Your task to perform on an android device: turn off javascript in the chrome app Image 0: 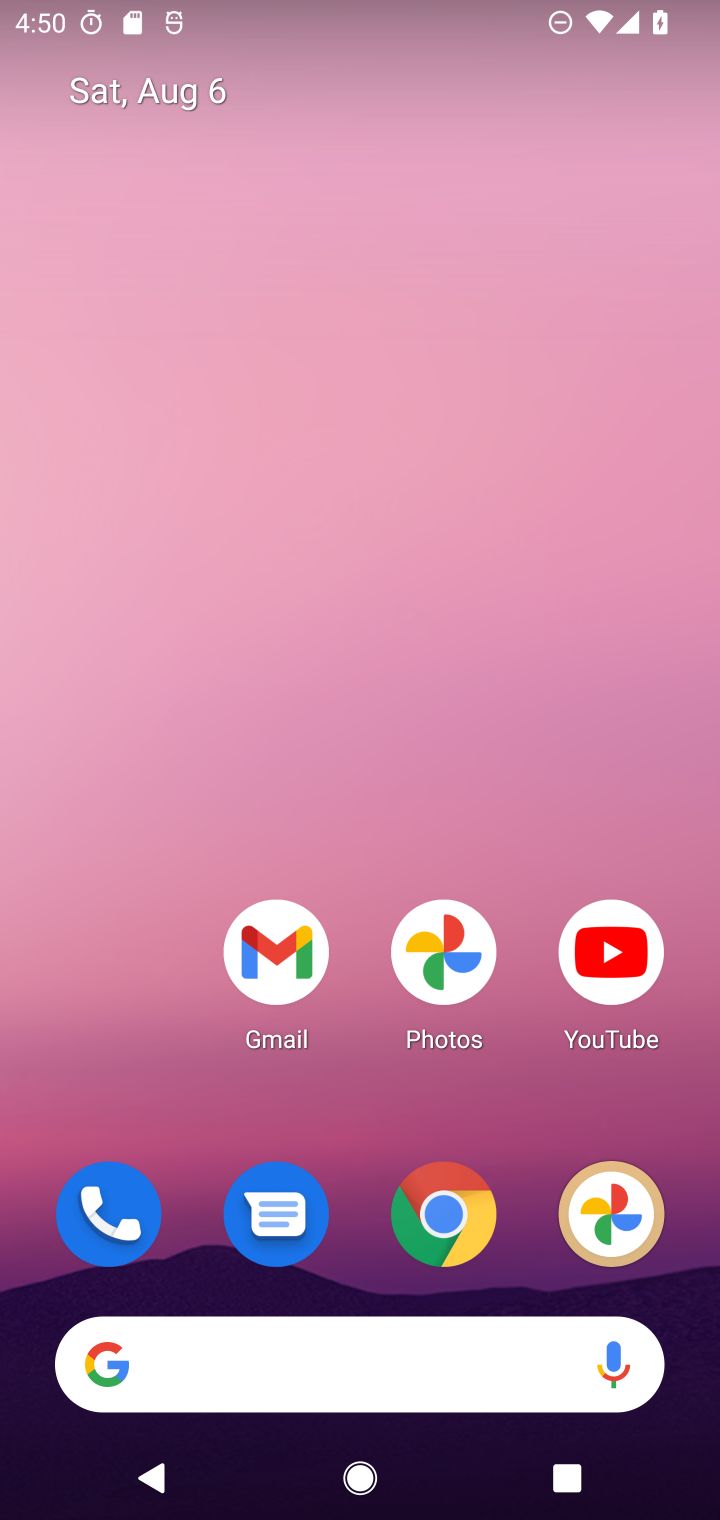
Step 0: click (442, 1220)
Your task to perform on an android device: turn off javascript in the chrome app Image 1: 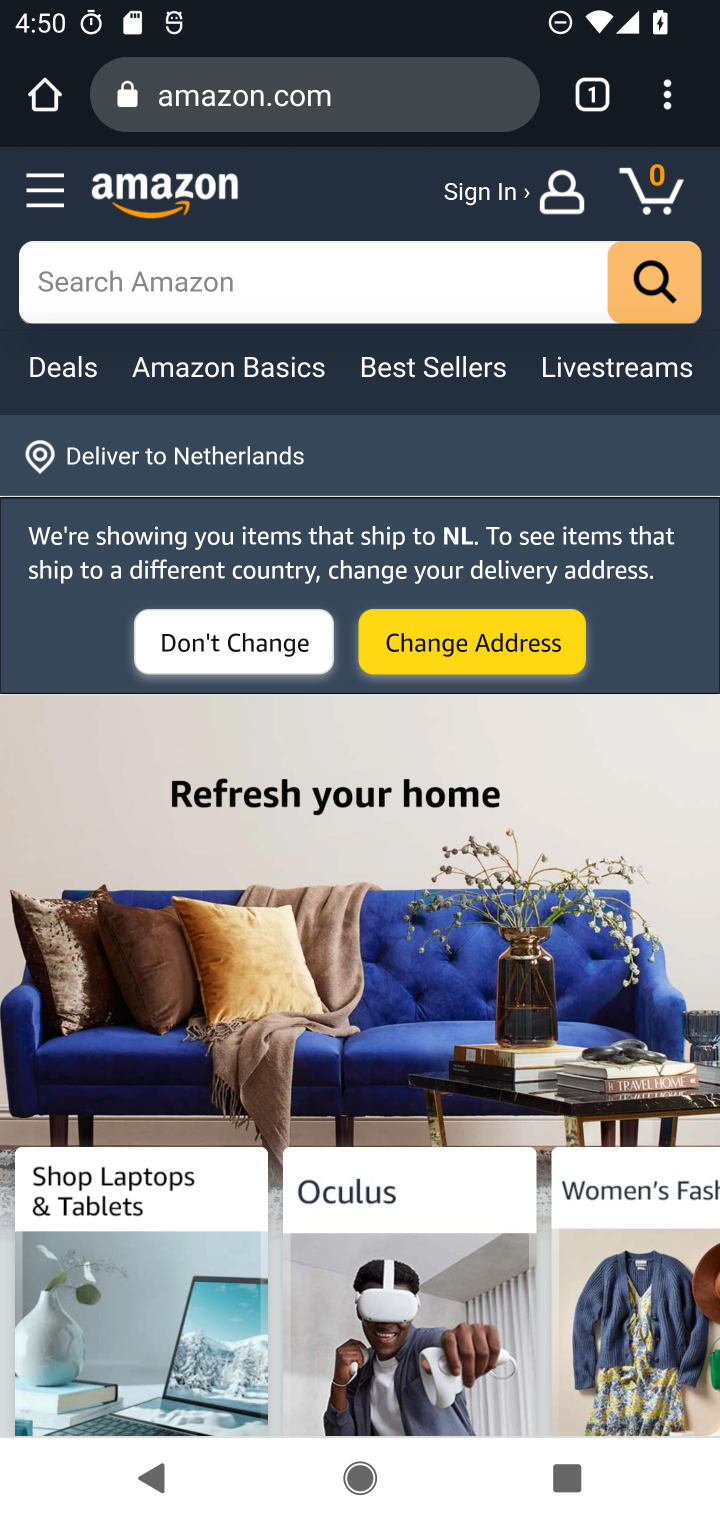
Step 1: click (662, 113)
Your task to perform on an android device: turn off javascript in the chrome app Image 2: 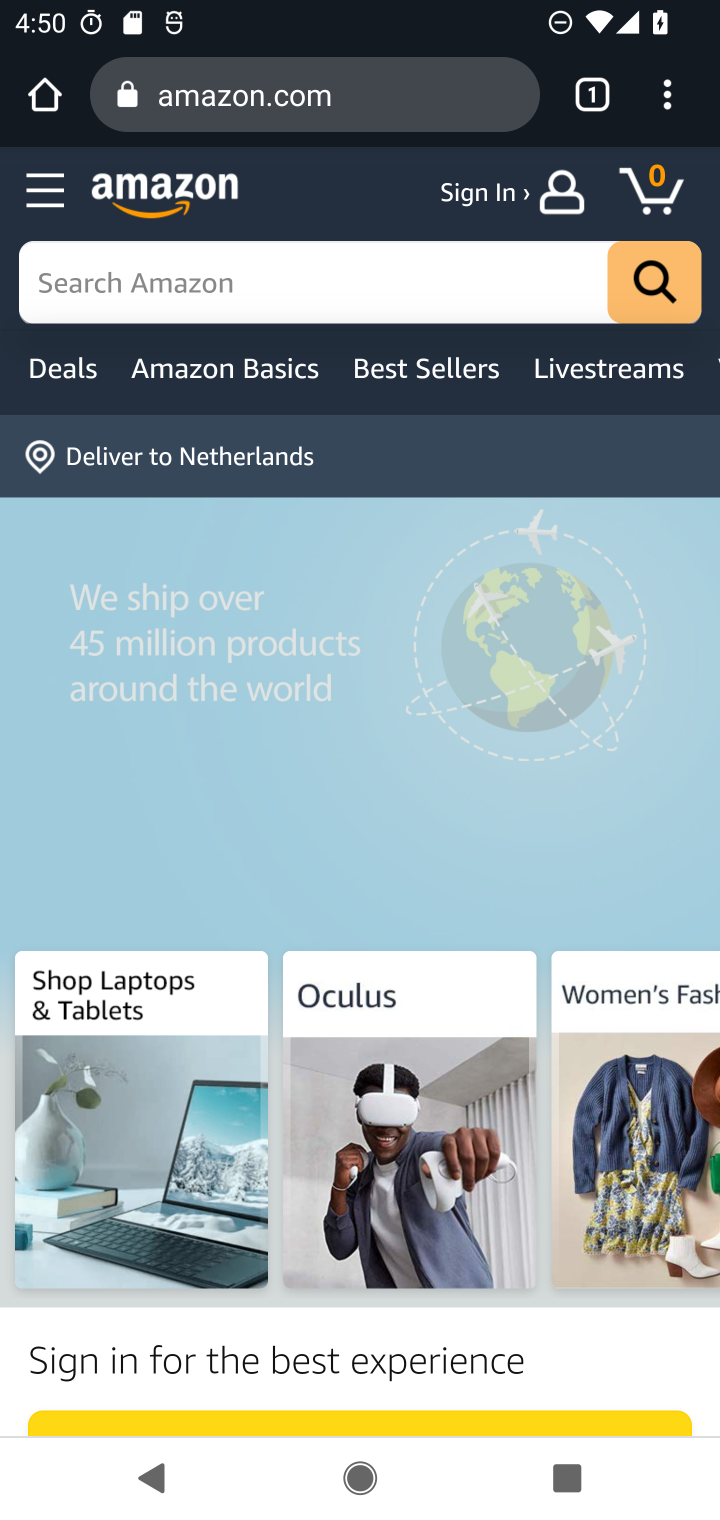
Step 2: click (672, 104)
Your task to perform on an android device: turn off javascript in the chrome app Image 3: 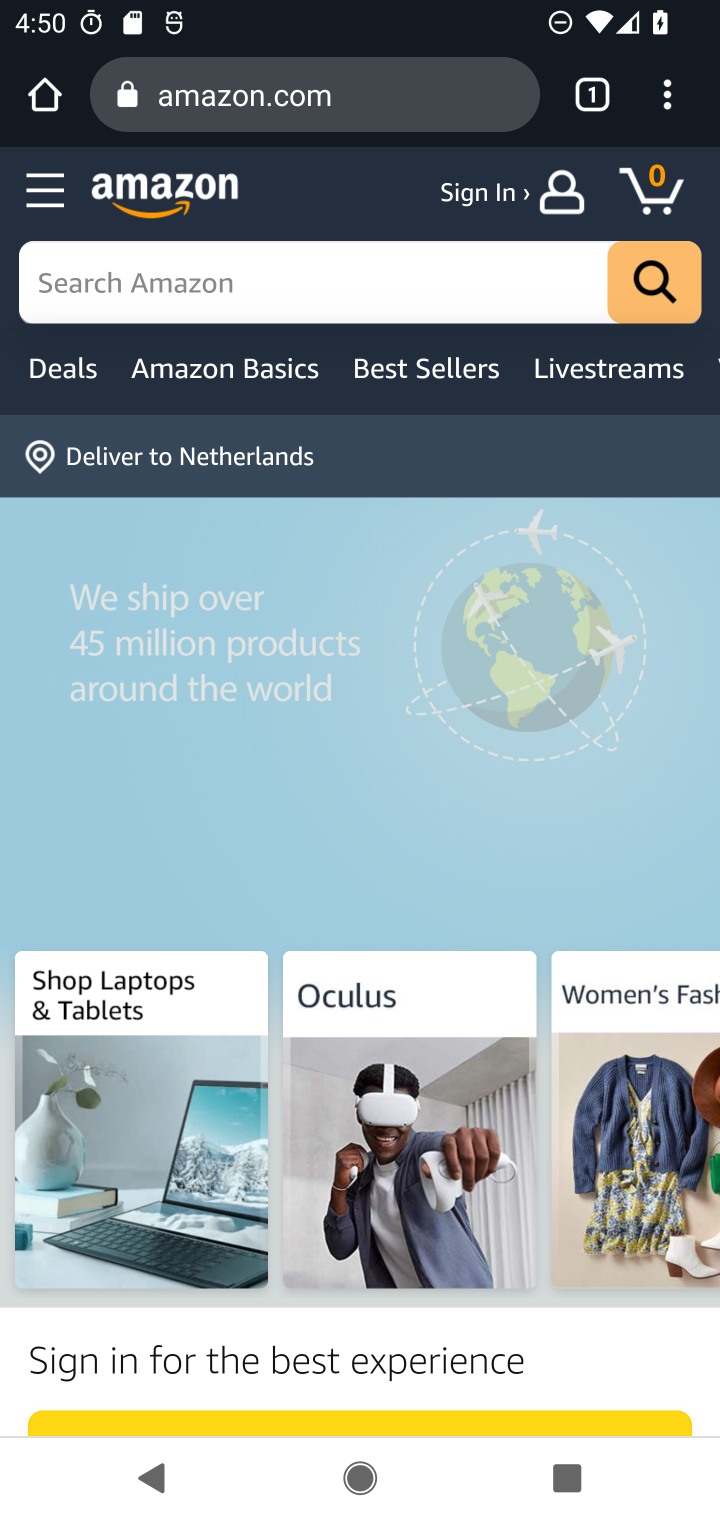
Step 3: click (598, 98)
Your task to perform on an android device: turn off javascript in the chrome app Image 4: 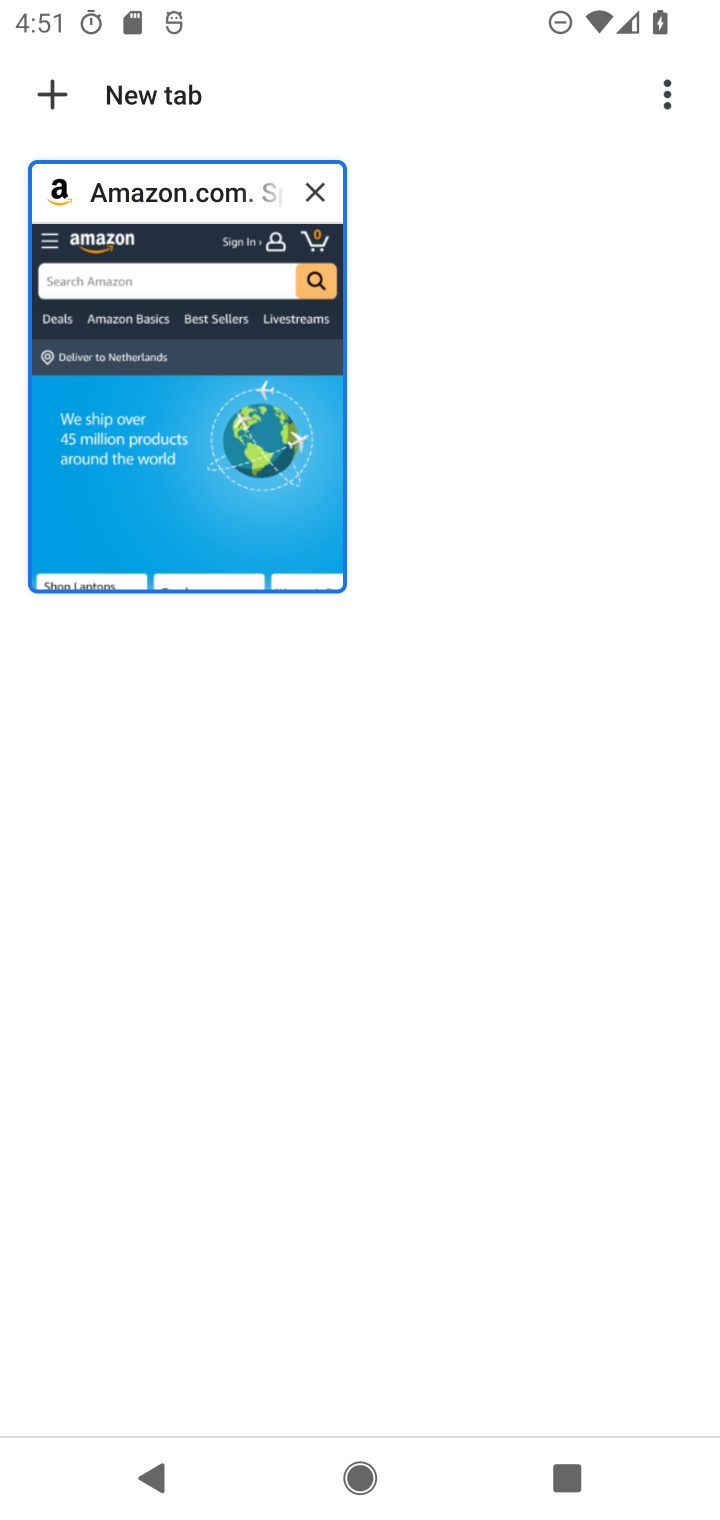
Step 4: click (38, 98)
Your task to perform on an android device: turn off javascript in the chrome app Image 5: 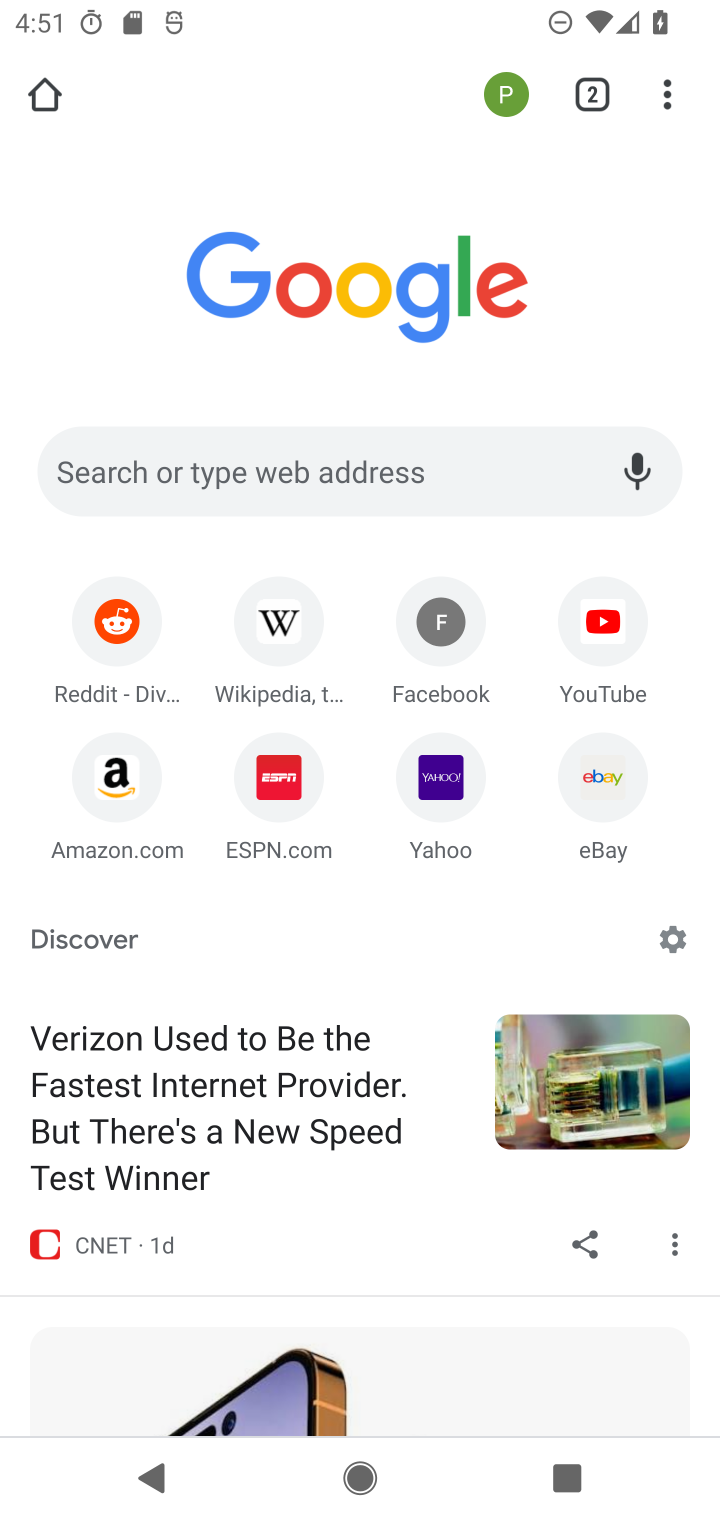
Step 5: click (669, 93)
Your task to perform on an android device: turn off javascript in the chrome app Image 6: 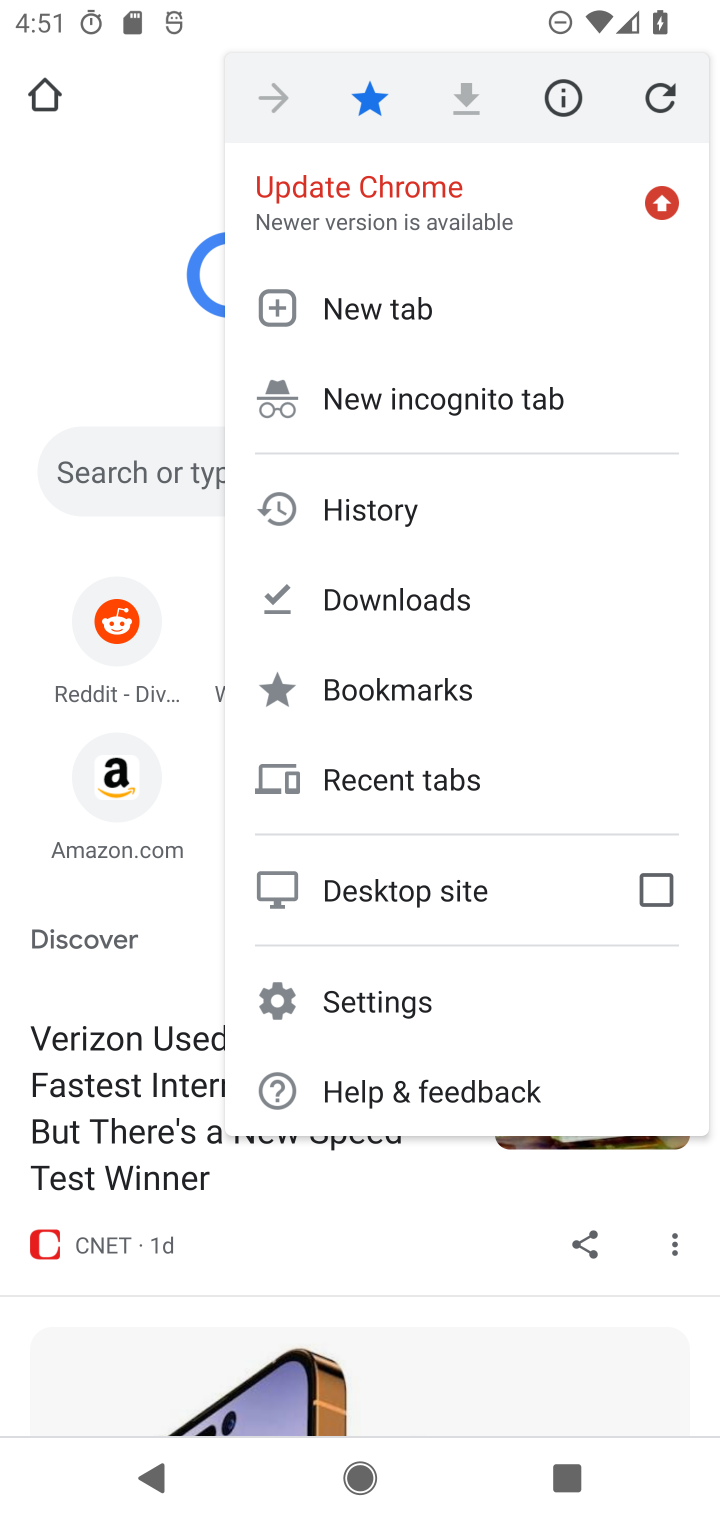
Step 6: click (390, 1018)
Your task to perform on an android device: turn off javascript in the chrome app Image 7: 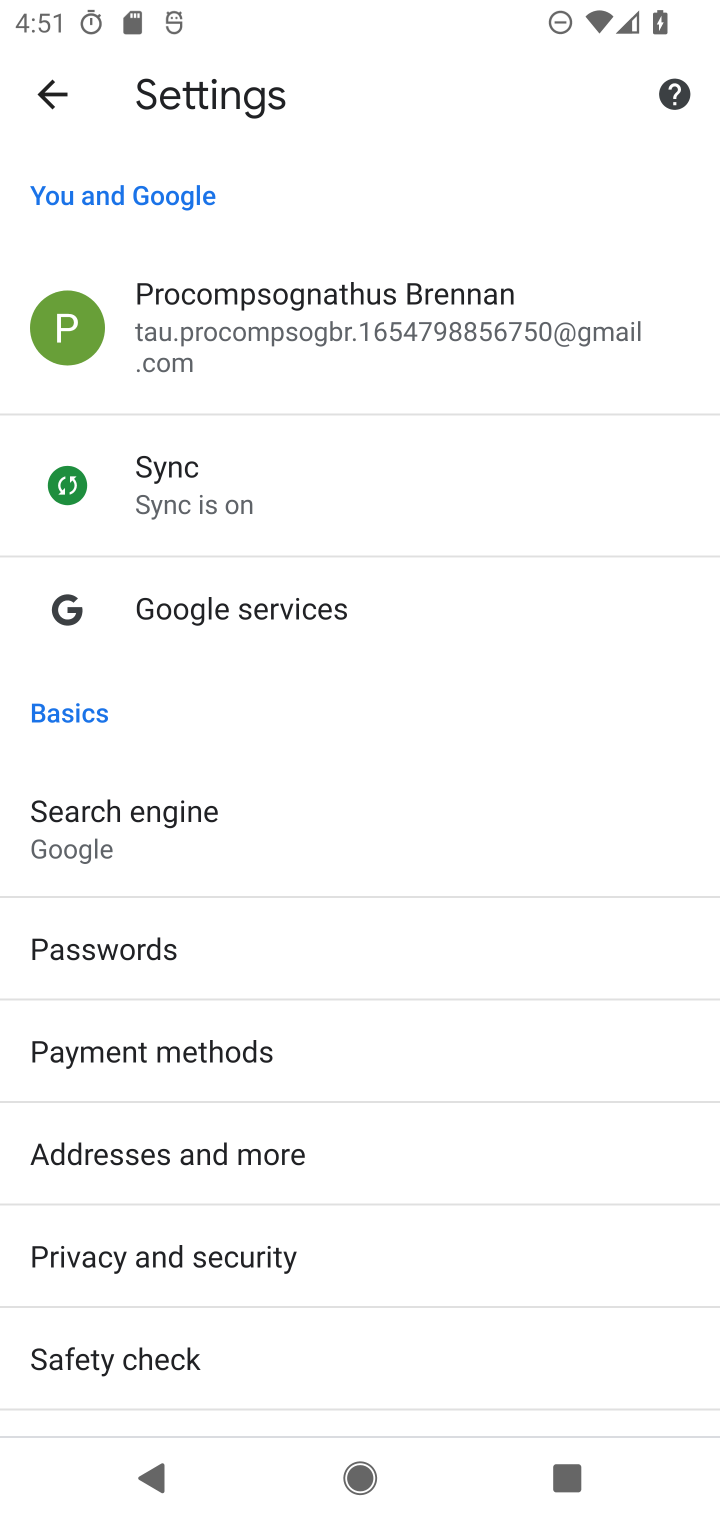
Step 7: drag from (120, 1292) to (163, 667)
Your task to perform on an android device: turn off javascript in the chrome app Image 8: 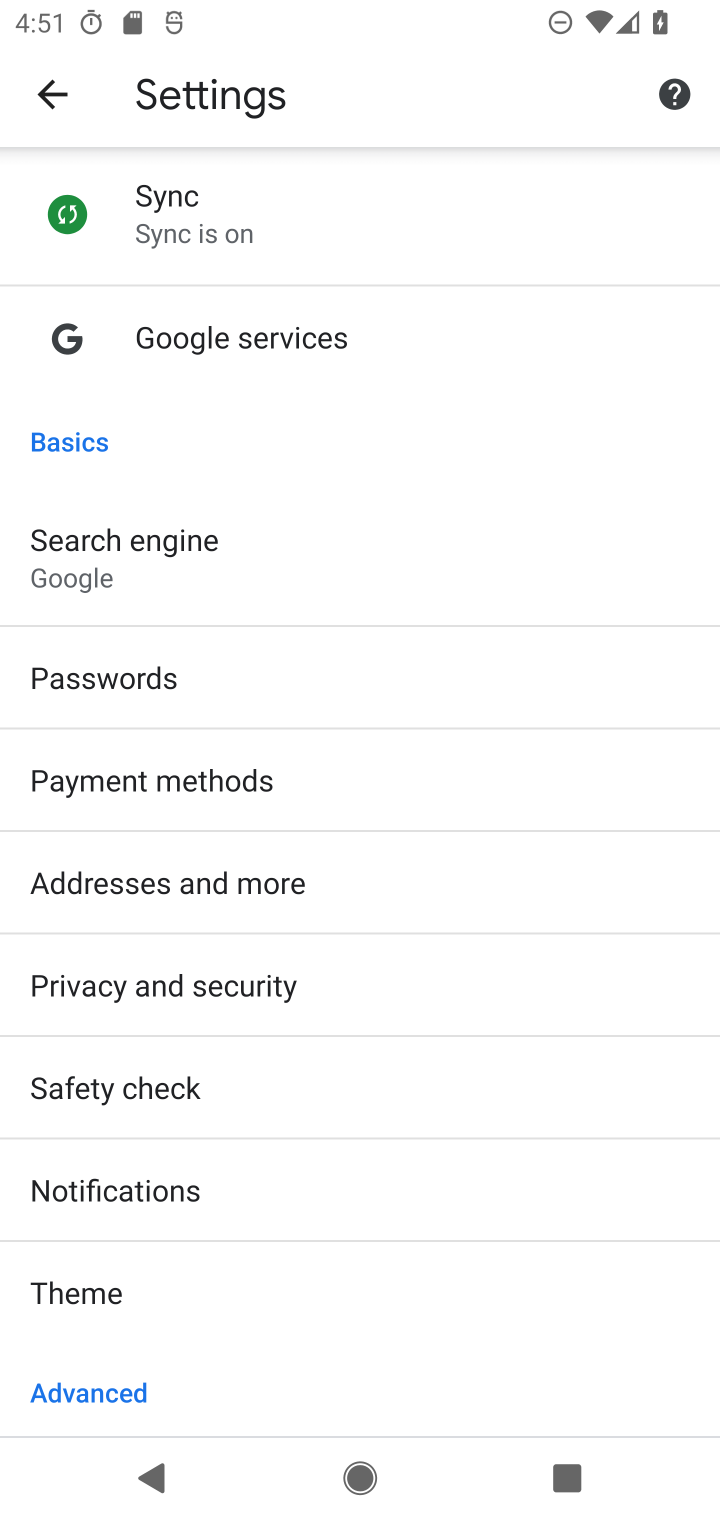
Step 8: drag from (156, 1295) to (267, 233)
Your task to perform on an android device: turn off javascript in the chrome app Image 9: 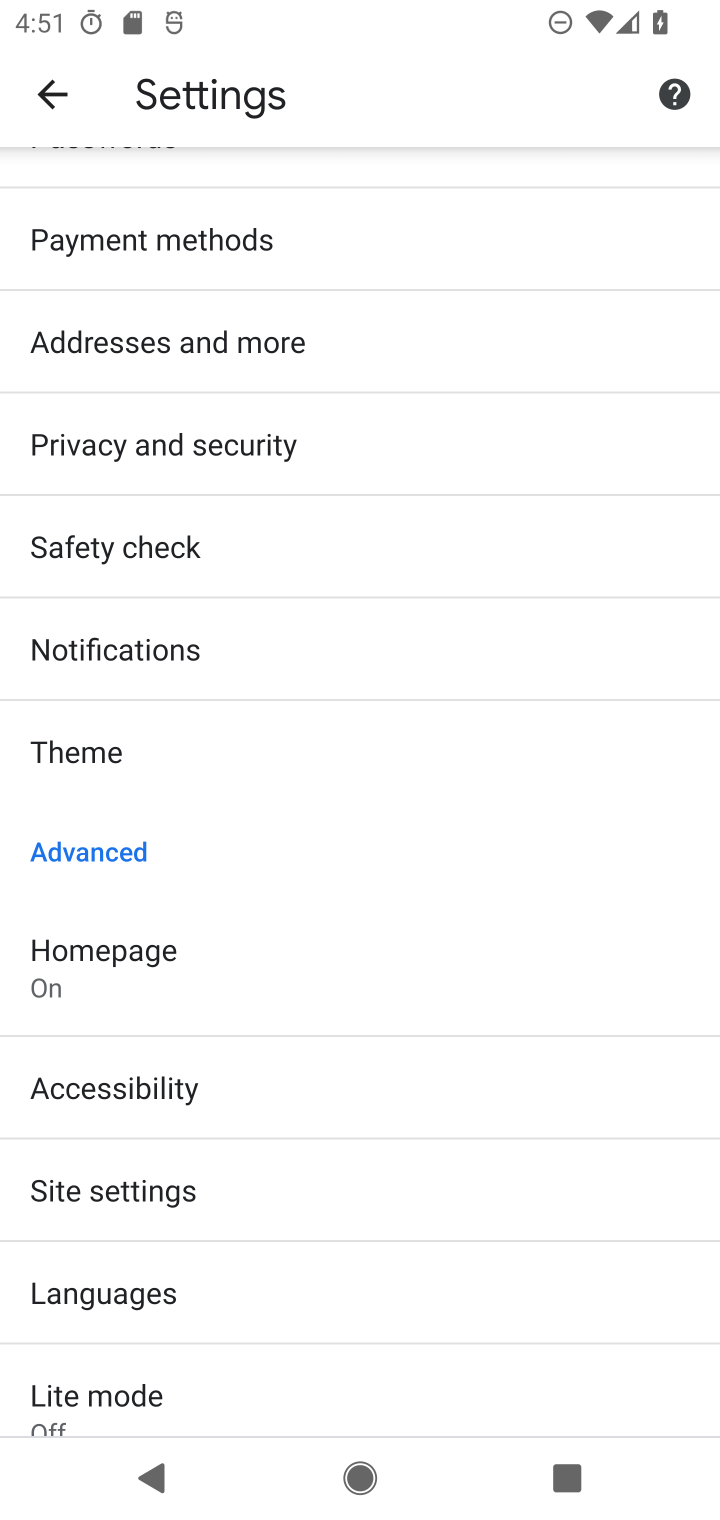
Step 9: click (72, 1188)
Your task to perform on an android device: turn off javascript in the chrome app Image 10: 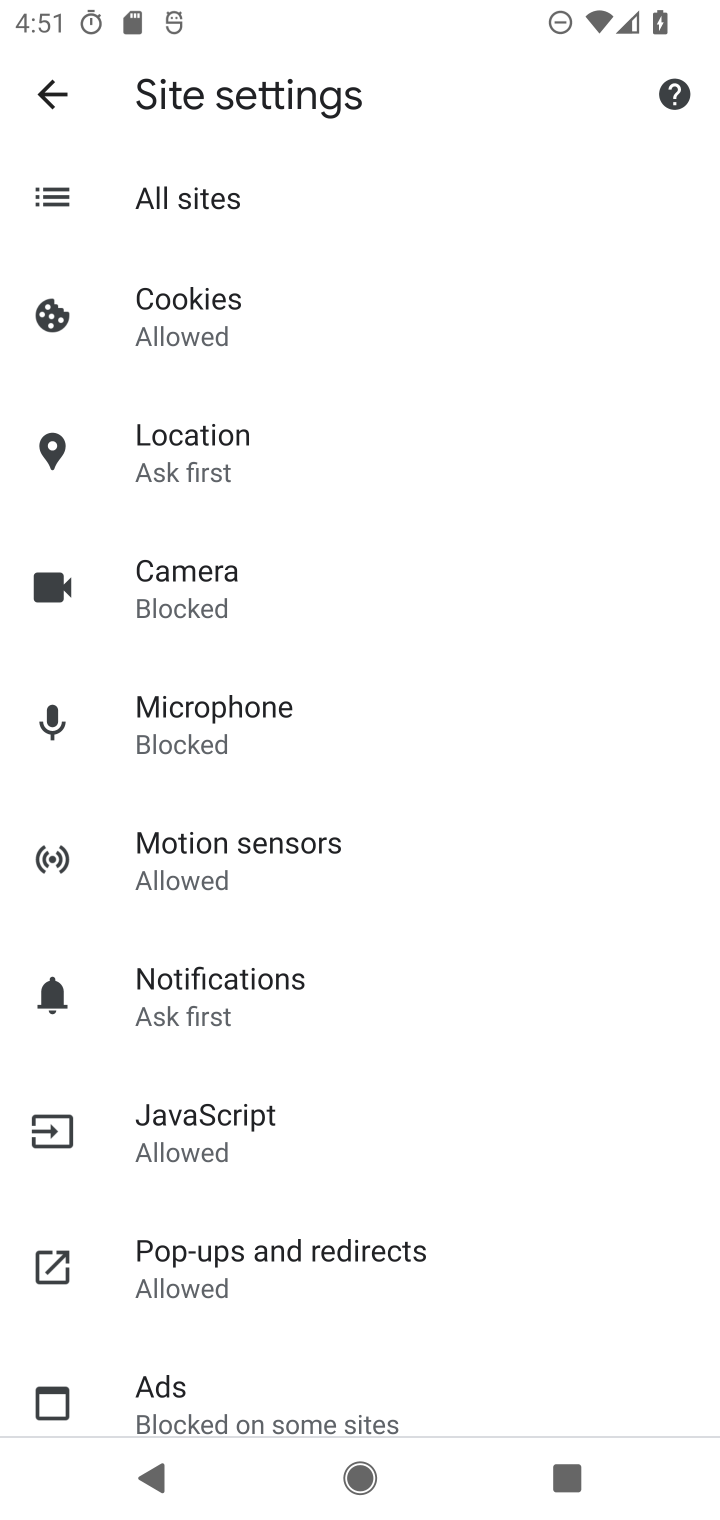
Step 10: click (176, 1150)
Your task to perform on an android device: turn off javascript in the chrome app Image 11: 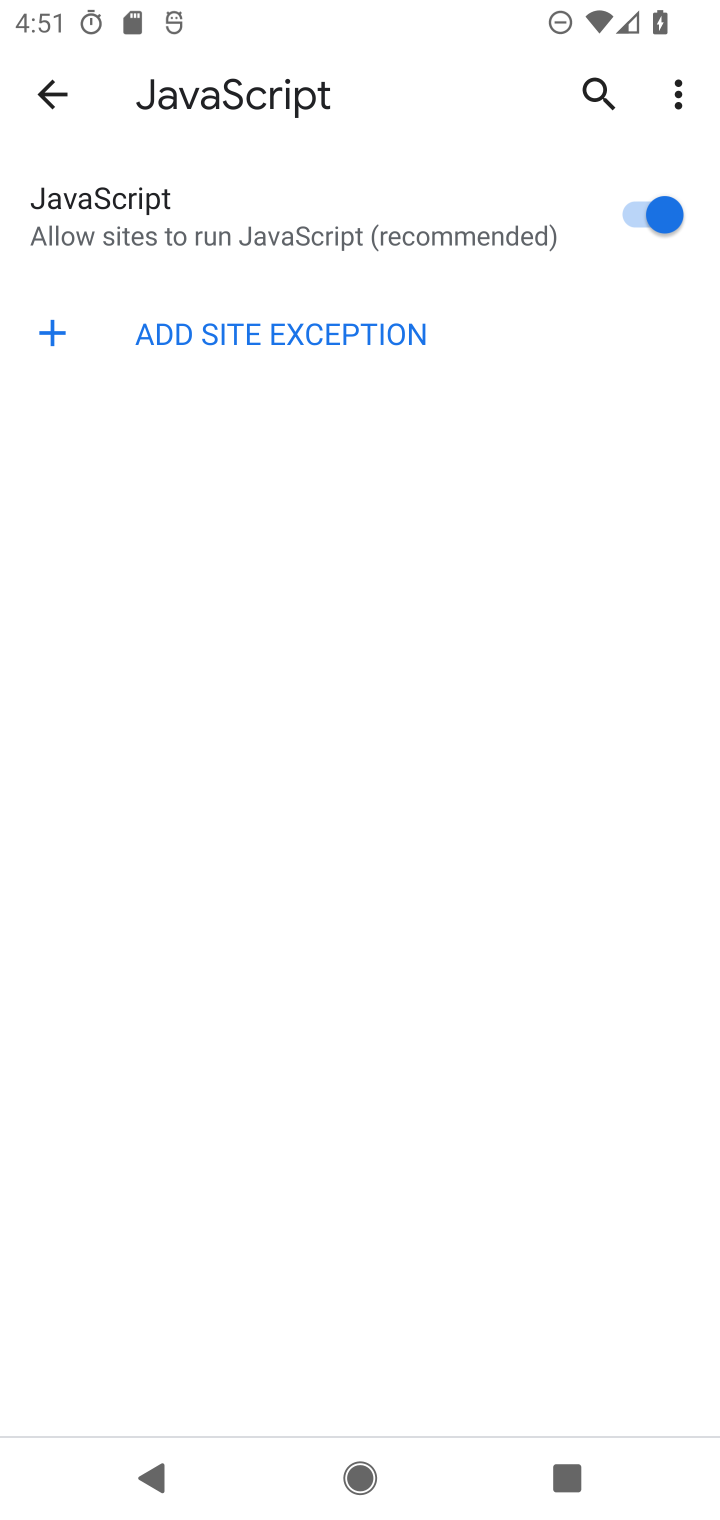
Step 11: task complete